Your task to perform on an android device: turn off location history Image 0: 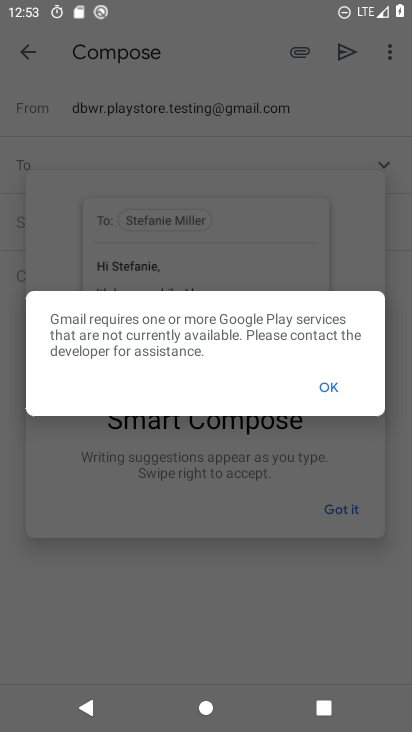
Step 0: press home button
Your task to perform on an android device: turn off location history Image 1: 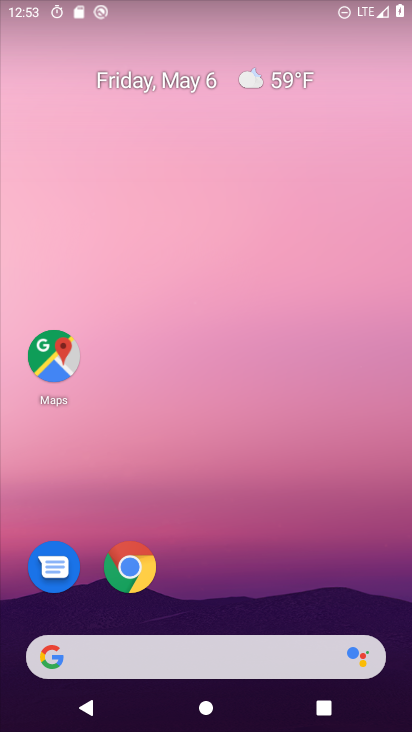
Step 1: click (42, 366)
Your task to perform on an android device: turn off location history Image 2: 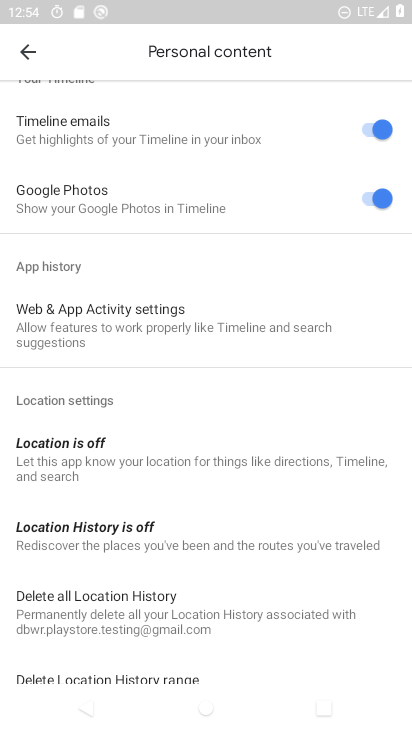
Step 2: click (78, 544)
Your task to perform on an android device: turn off location history Image 3: 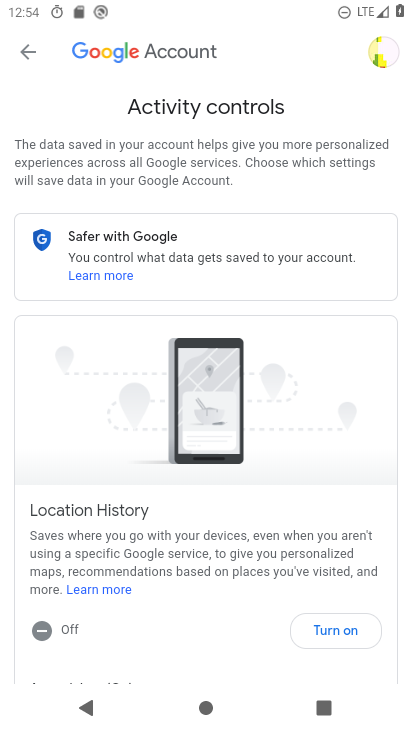
Step 3: task complete